Your task to perform on an android device: Show me popular videos on Youtube Image 0: 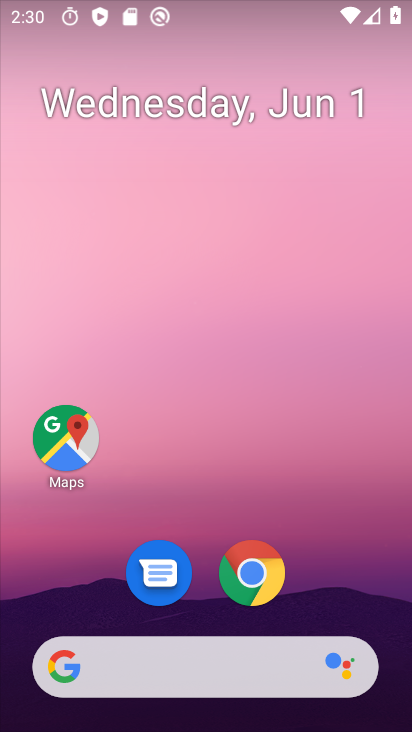
Step 0: drag from (203, 603) to (203, 195)
Your task to perform on an android device: Show me popular videos on Youtube Image 1: 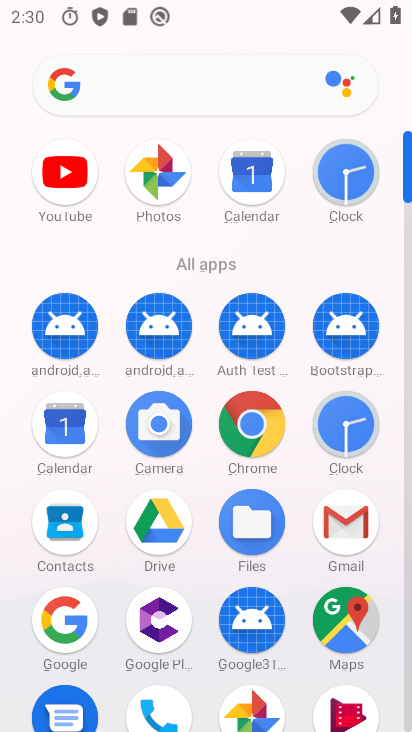
Step 1: click (74, 185)
Your task to perform on an android device: Show me popular videos on Youtube Image 2: 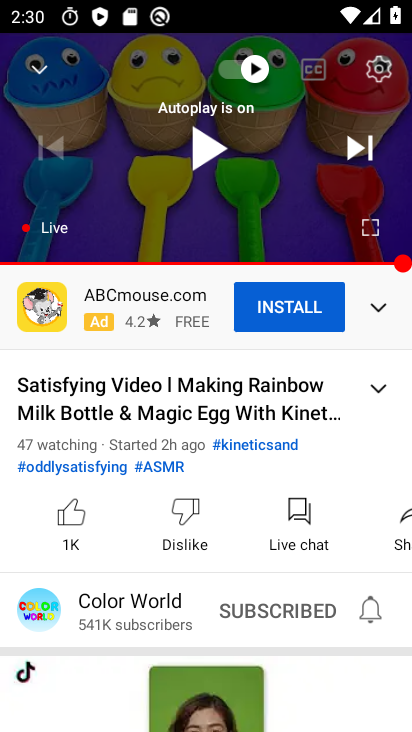
Step 2: drag from (290, 159) to (290, 492)
Your task to perform on an android device: Show me popular videos on Youtube Image 3: 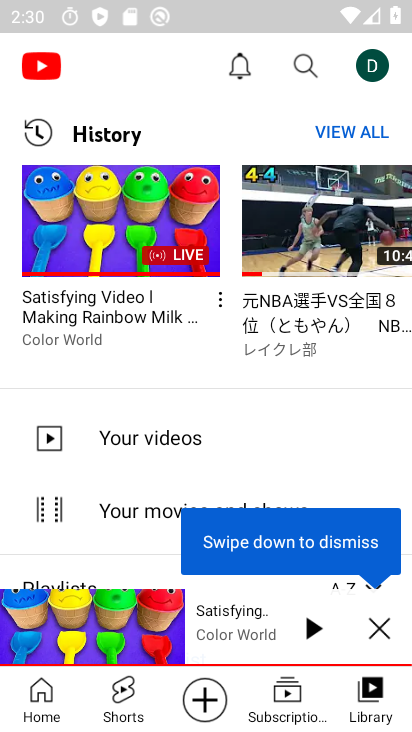
Step 3: click (382, 622)
Your task to perform on an android device: Show me popular videos on Youtube Image 4: 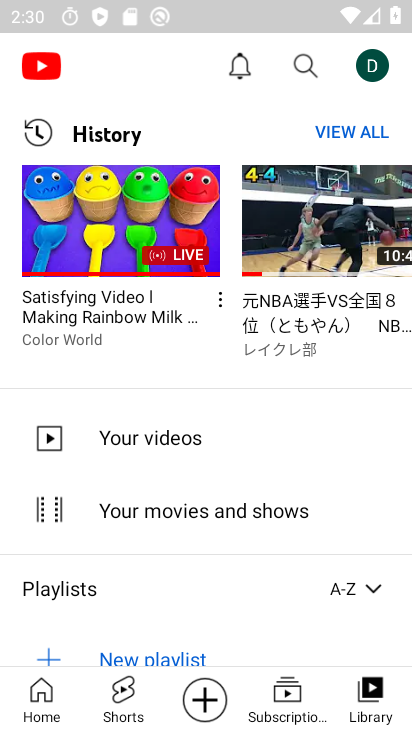
Step 4: click (294, 68)
Your task to perform on an android device: Show me popular videos on Youtube Image 5: 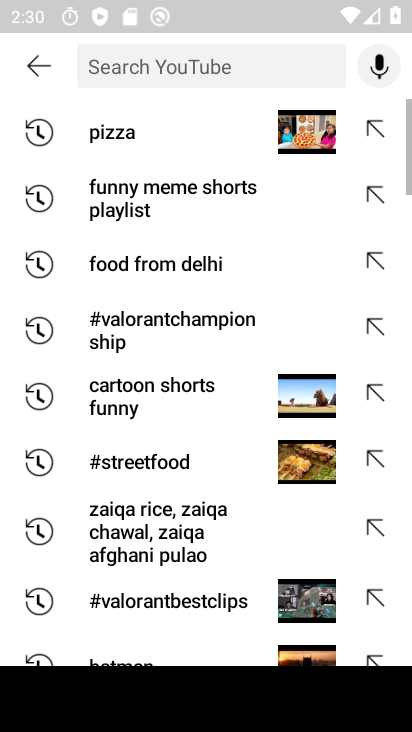
Step 5: click (271, 68)
Your task to perform on an android device: Show me popular videos on Youtube Image 6: 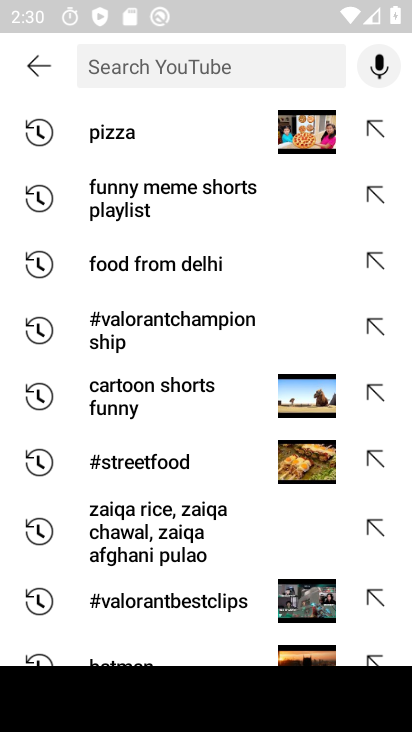
Step 6: type "popular videos"
Your task to perform on an android device: Show me popular videos on Youtube Image 7: 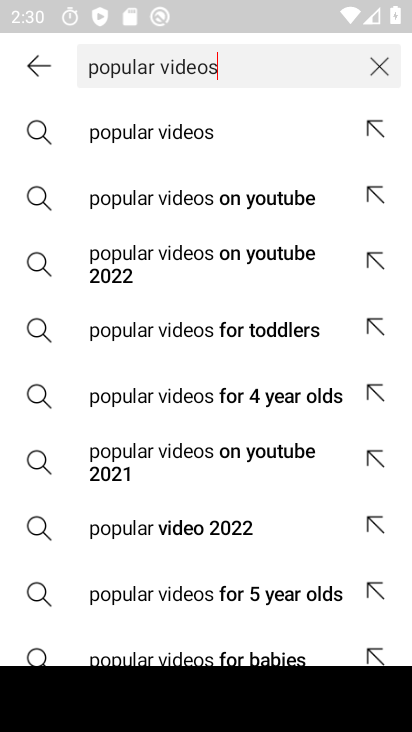
Step 7: click (168, 143)
Your task to perform on an android device: Show me popular videos on Youtube Image 8: 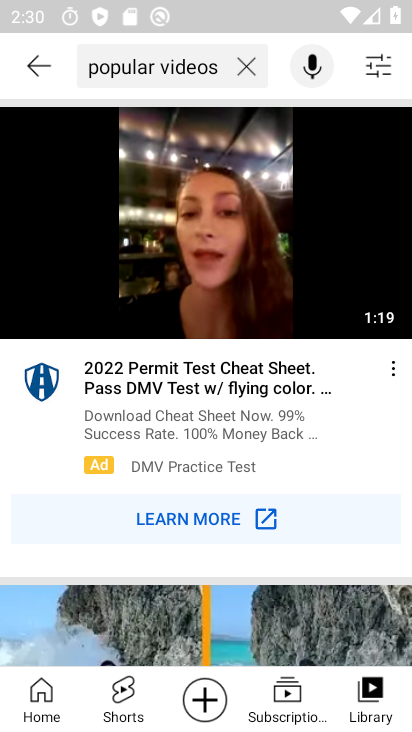
Step 8: task complete